Your task to perform on an android device: see creations saved in the google photos Image 0: 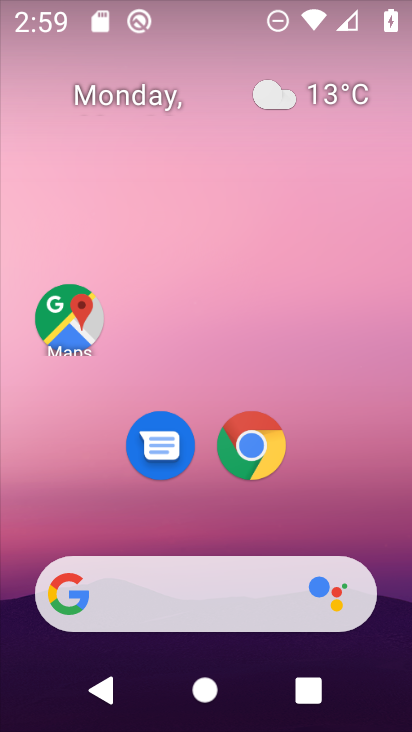
Step 0: drag from (389, 621) to (315, 100)
Your task to perform on an android device: see creations saved in the google photos Image 1: 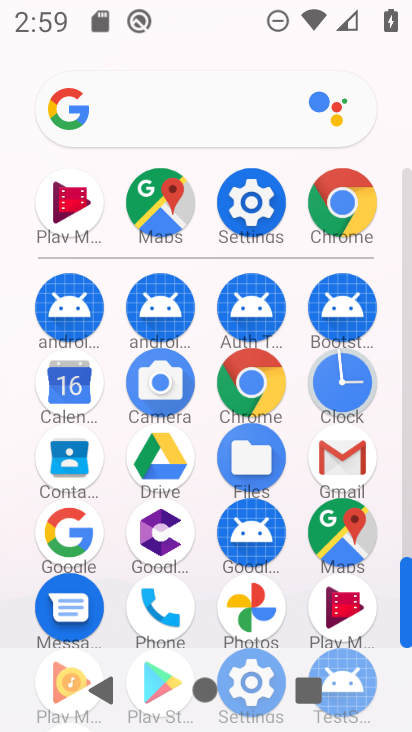
Step 1: click (264, 610)
Your task to perform on an android device: see creations saved in the google photos Image 2: 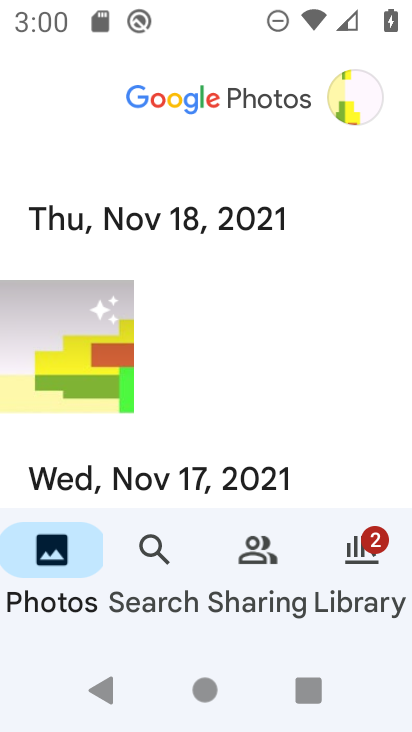
Step 2: click (158, 567)
Your task to perform on an android device: see creations saved in the google photos Image 3: 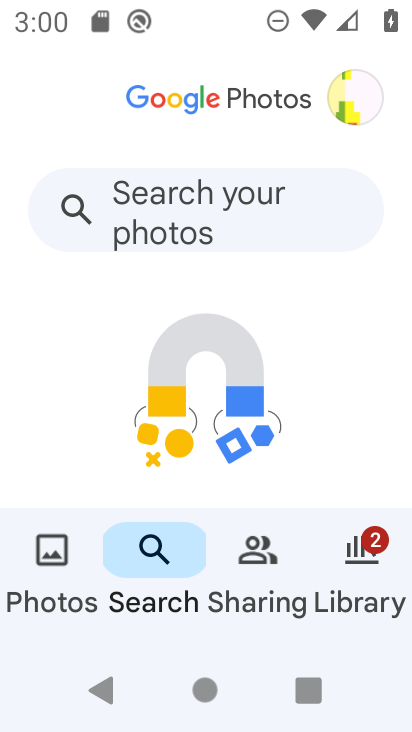
Step 3: drag from (128, 479) to (157, 96)
Your task to perform on an android device: see creations saved in the google photos Image 4: 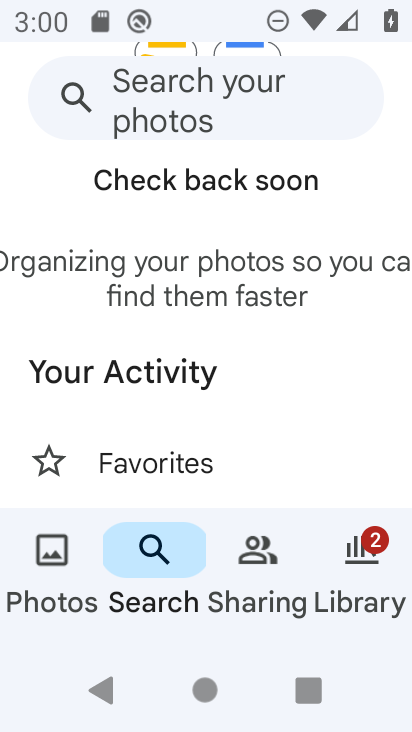
Step 4: drag from (115, 427) to (198, 3)
Your task to perform on an android device: see creations saved in the google photos Image 5: 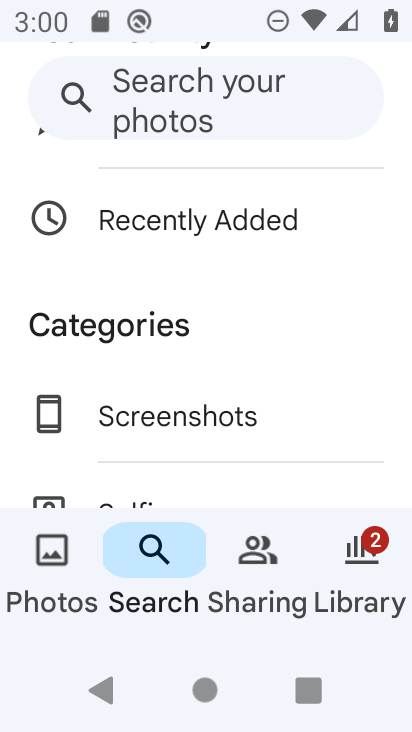
Step 5: drag from (112, 474) to (166, 2)
Your task to perform on an android device: see creations saved in the google photos Image 6: 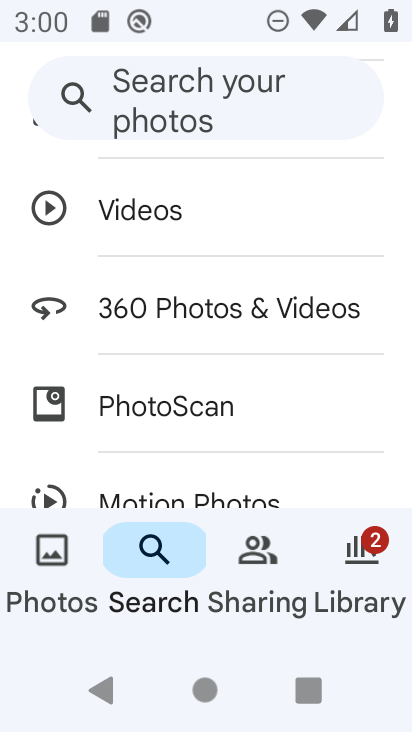
Step 6: drag from (117, 472) to (158, 34)
Your task to perform on an android device: see creations saved in the google photos Image 7: 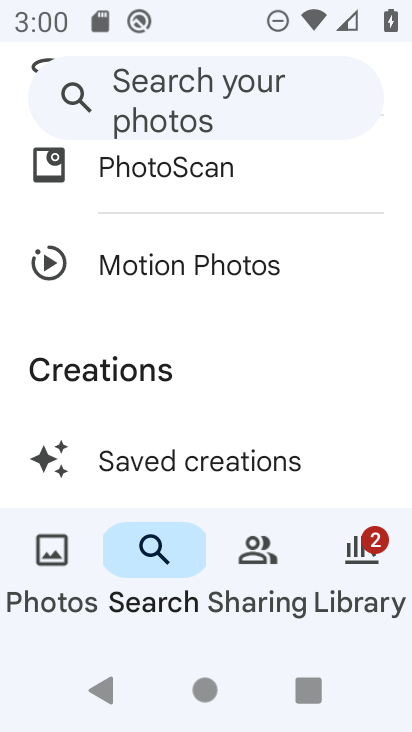
Step 7: click (118, 480)
Your task to perform on an android device: see creations saved in the google photos Image 8: 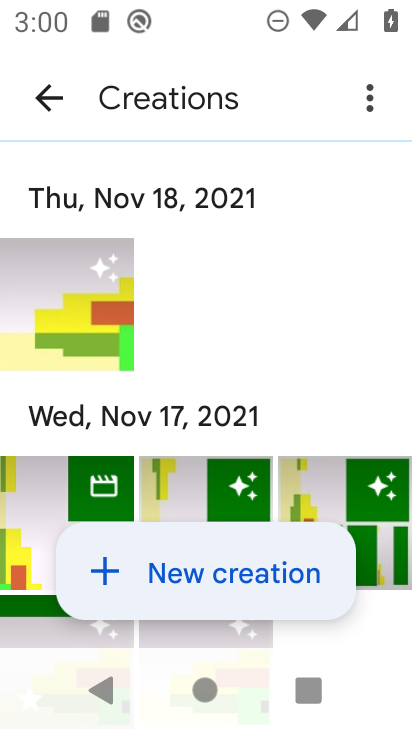
Step 8: task complete